Your task to perform on an android device: open app "Google Duo" (install if not already installed) Image 0: 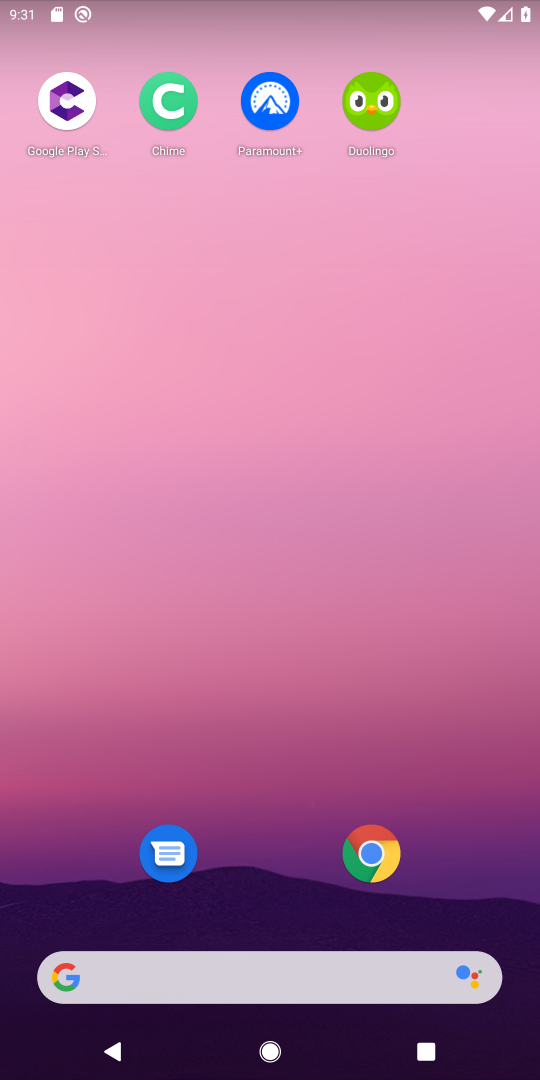
Step 0: drag from (252, 921) to (241, 78)
Your task to perform on an android device: open app "Google Duo" (install if not already installed) Image 1: 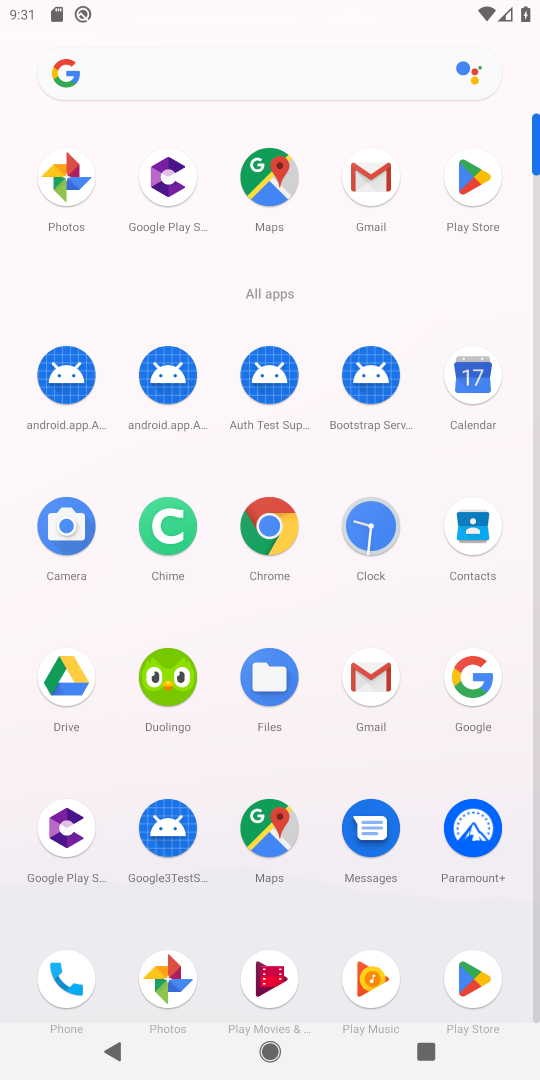
Step 1: click (465, 974)
Your task to perform on an android device: open app "Google Duo" (install if not already installed) Image 2: 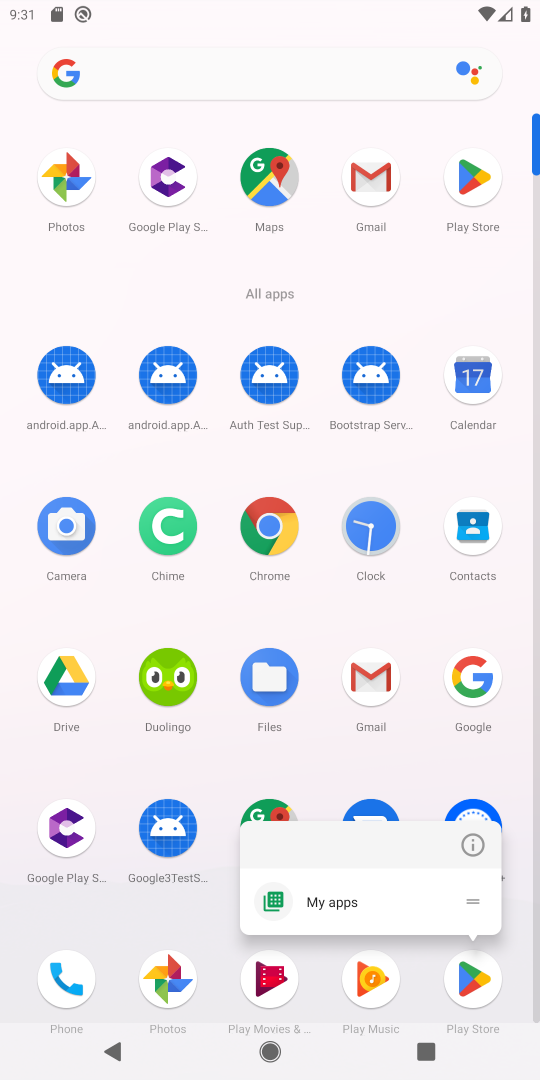
Step 2: click (466, 978)
Your task to perform on an android device: open app "Google Duo" (install if not already installed) Image 3: 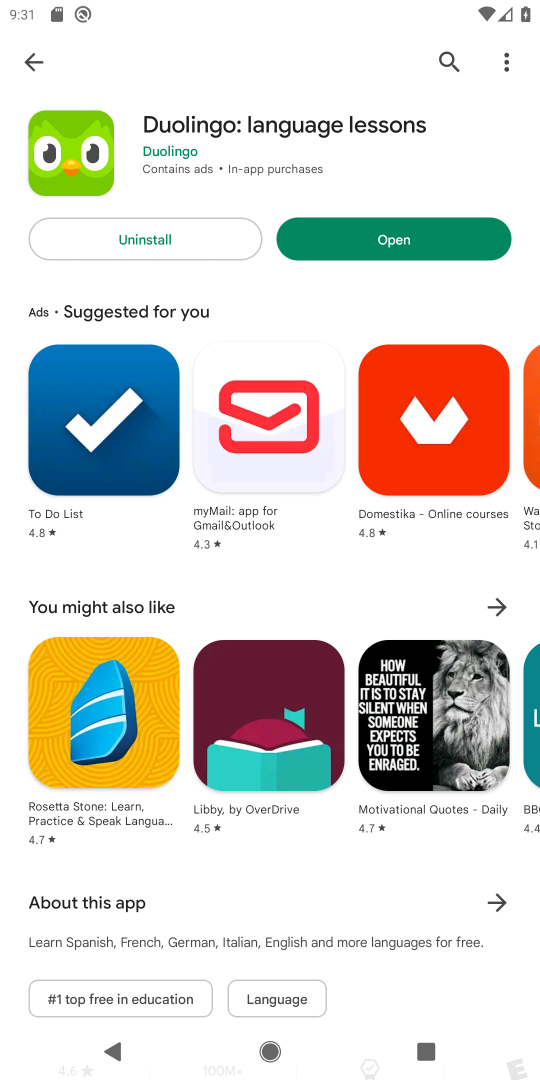
Step 3: click (436, 52)
Your task to perform on an android device: open app "Google Duo" (install if not already installed) Image 4: 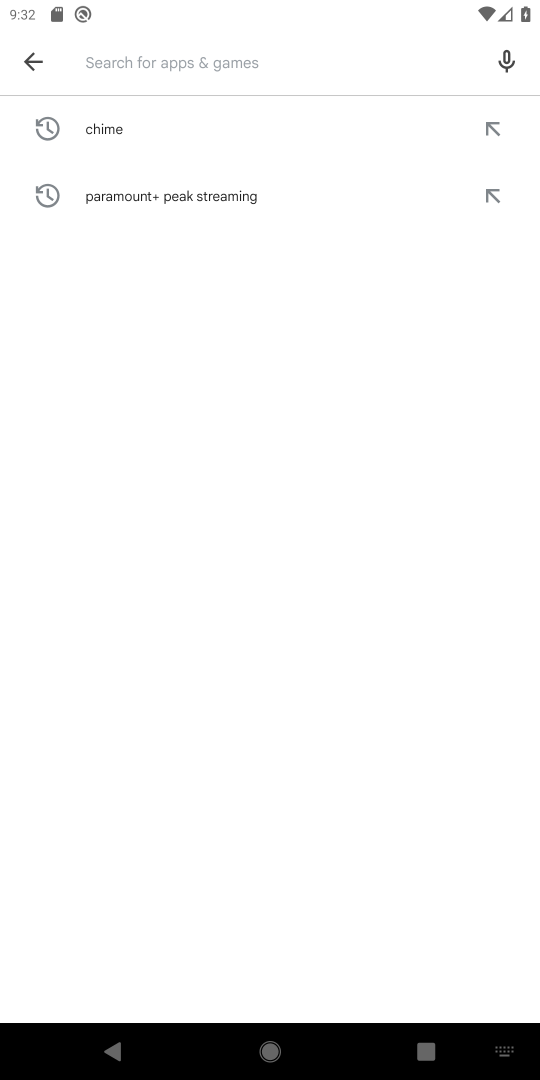
Step 4: type "Duolingo: language lesson"
Your task to perform on an android device: open app "Google Duo" (install if not already installed) Image 5: 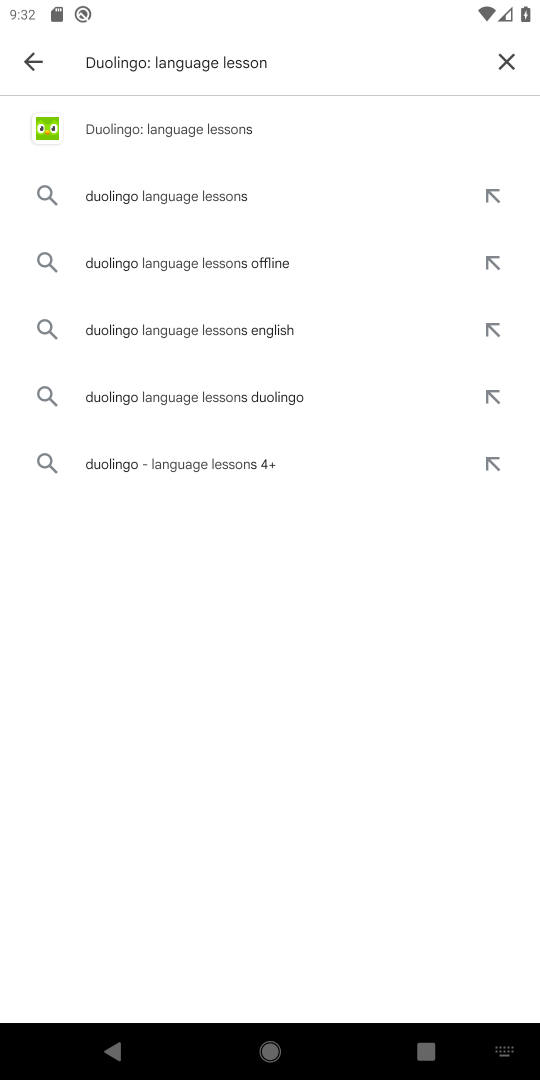
Step 5: click (502, 61)
Your task to perform on an android device: open app "Google Duo" (install if not already installed) Image 6: 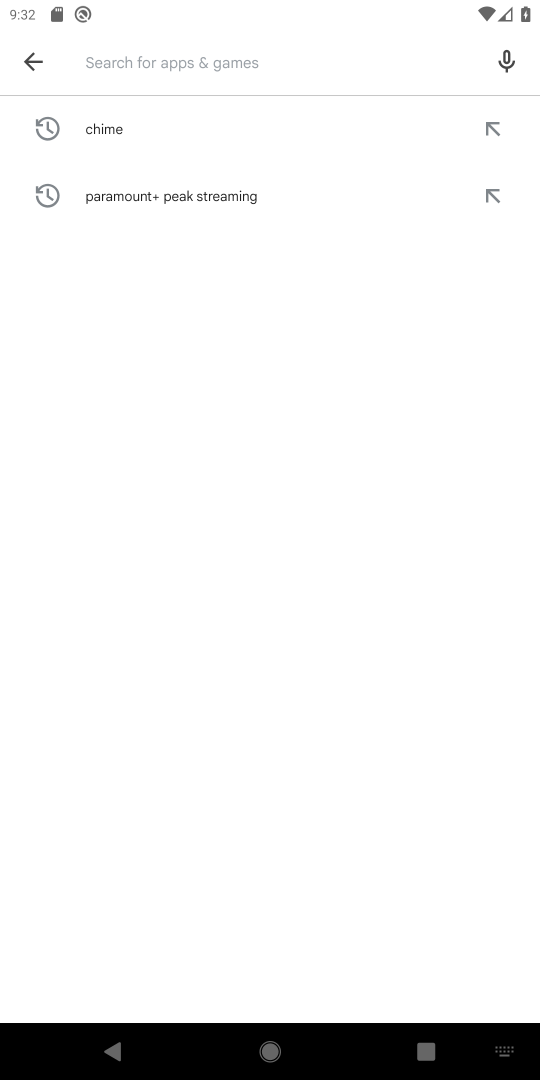
Step 6: type "Google Duo"
Your task to perform on an android device: open app "Google Duo" (install if not already installed) Image 7: 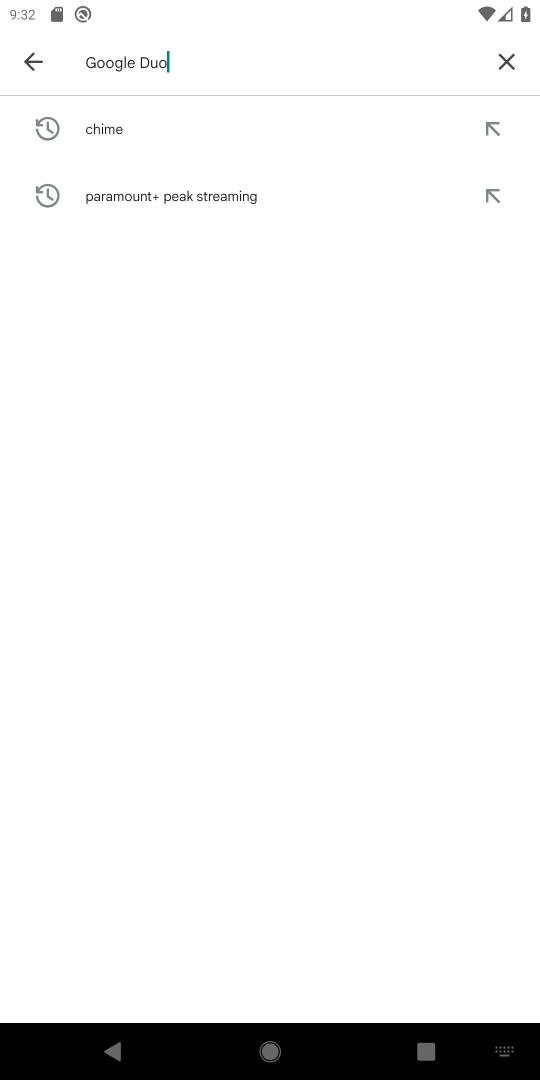
Step 7: type ""
Your task to perform on an android device: open app "Google Duo" (install if not already installed) Image 8: 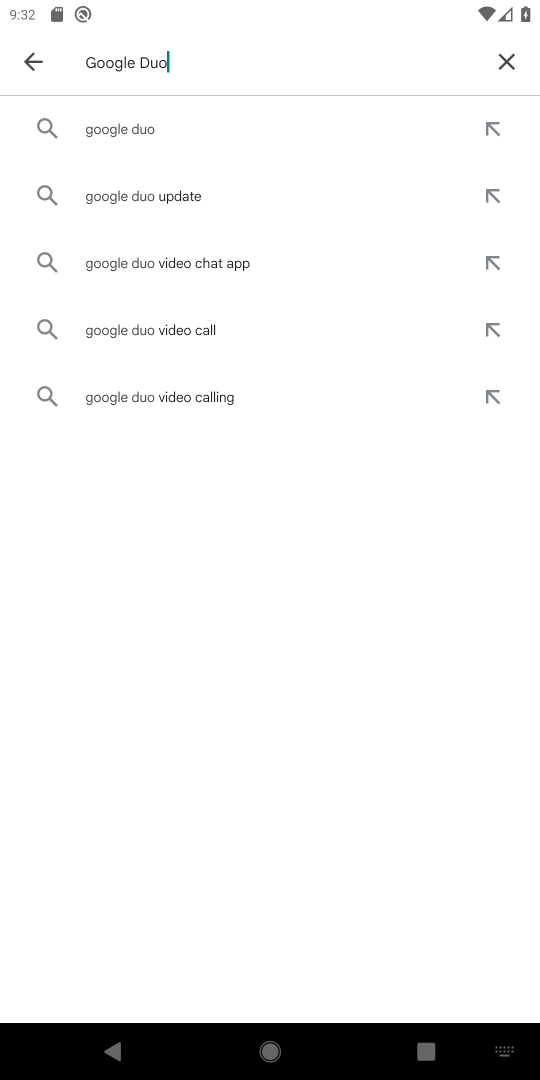
Step 8: click (130, 129)
Your task to perform on an android device: open app "Google Duo" (install if not already installed) Image 9: 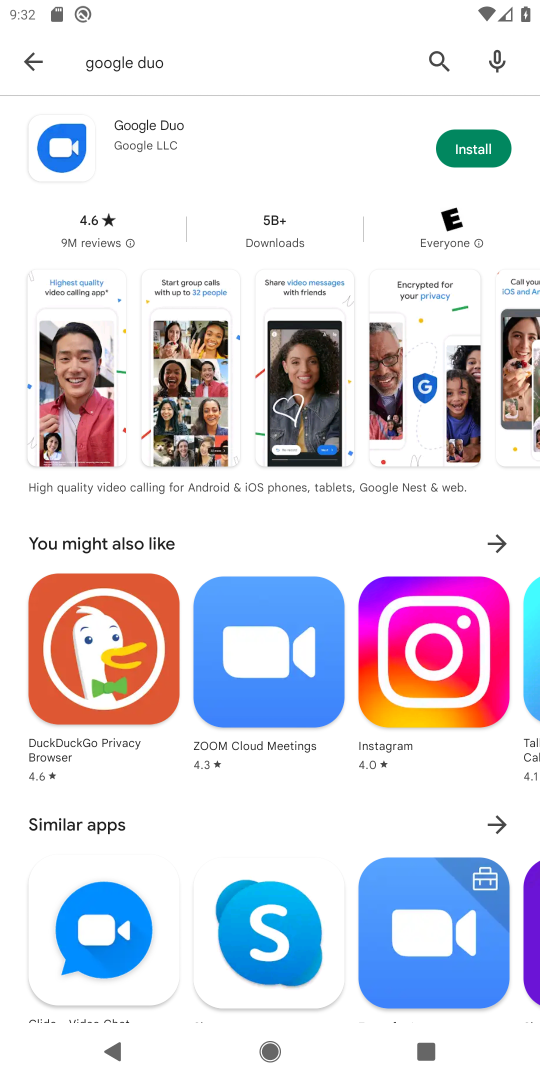
Step 9: click (465, 149)
Your task to perform on an android device: open app "Google Duo" (install if not already installed) Image 10: 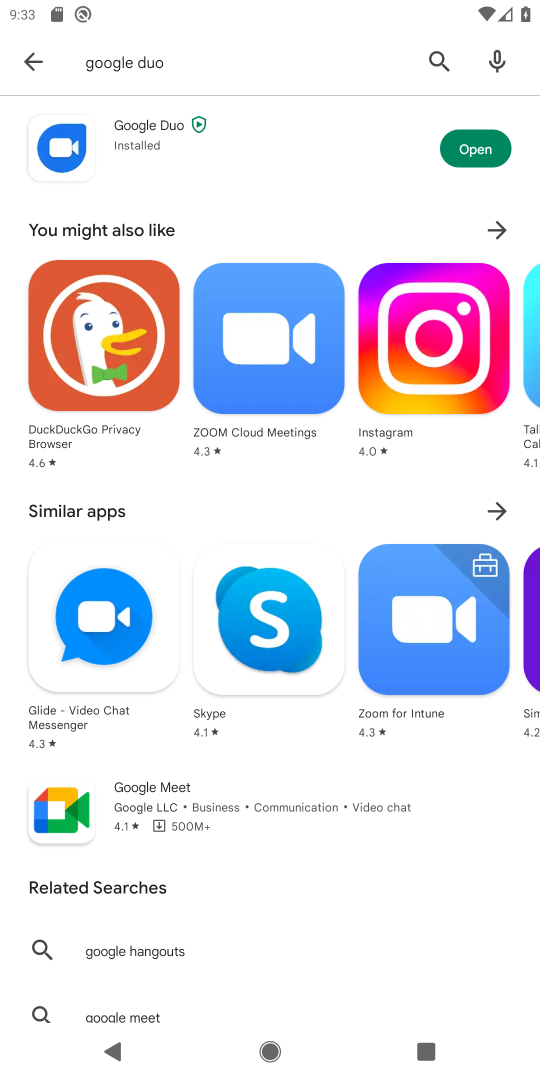
Step 10: click (472, 151)
Your task to perform on an android device: open app "Google Duo" (install if not already installed) Image 11: 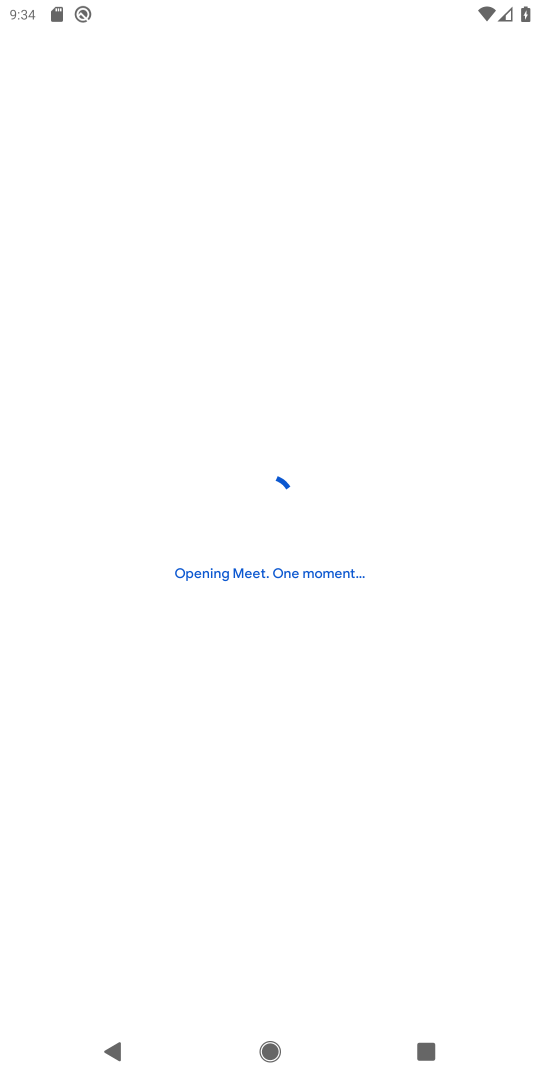
Step 11: task complete